Your task to perform on an android device: Add "energizer triple a" to the cart on newegg.com Image 0: 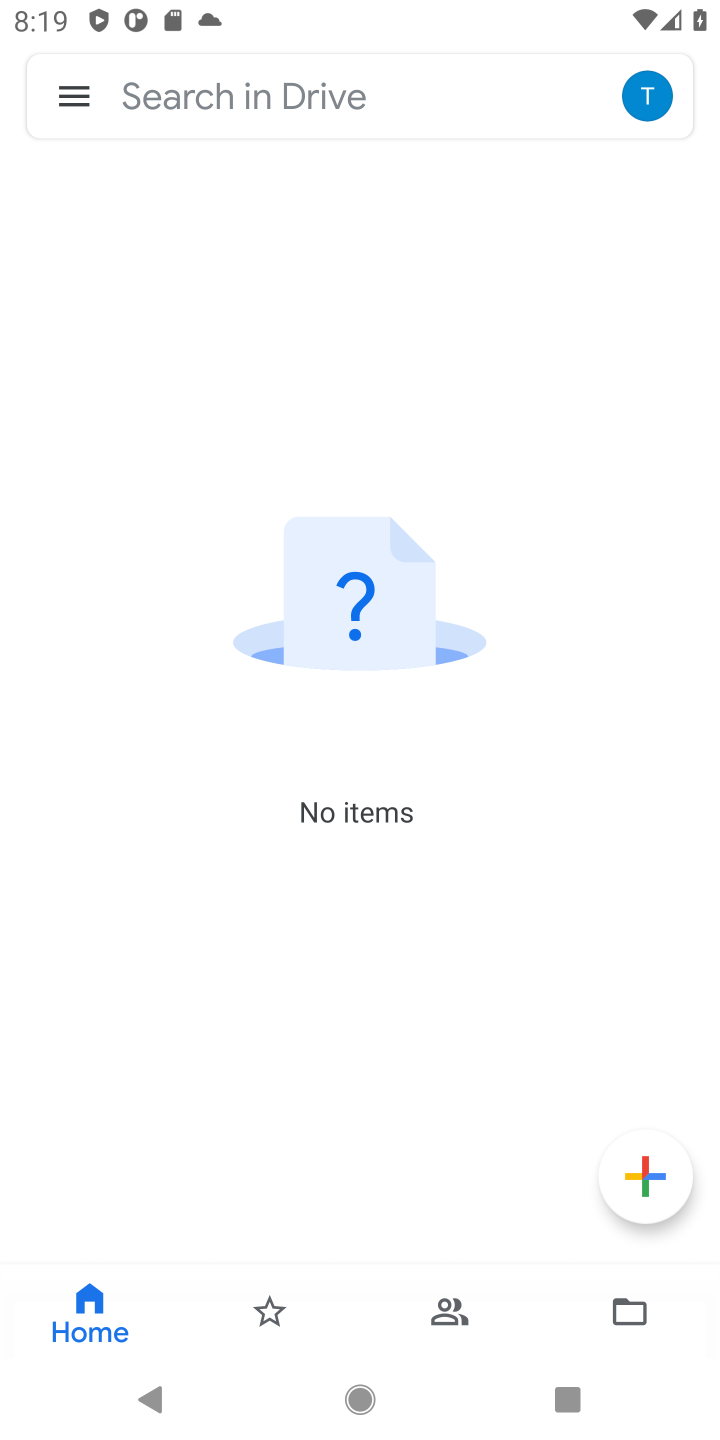
Step 0: press home button
Your task to perform on an android device: Add "energizer triple a" to the cart on newegg.com Image 1: 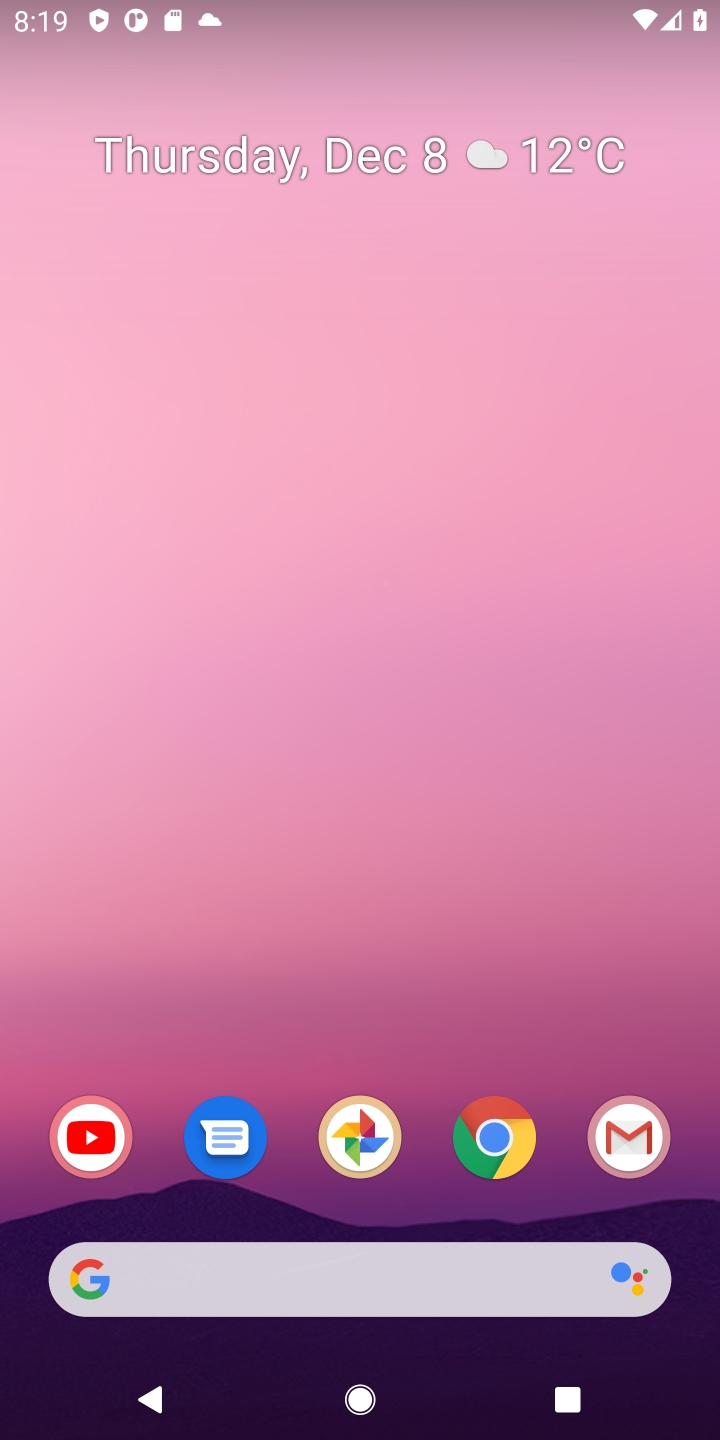
Step 1: click (488, 1134)
Your task to perform on an android device: Add "energizer triple a" to the cart on newegg.com Image 2: 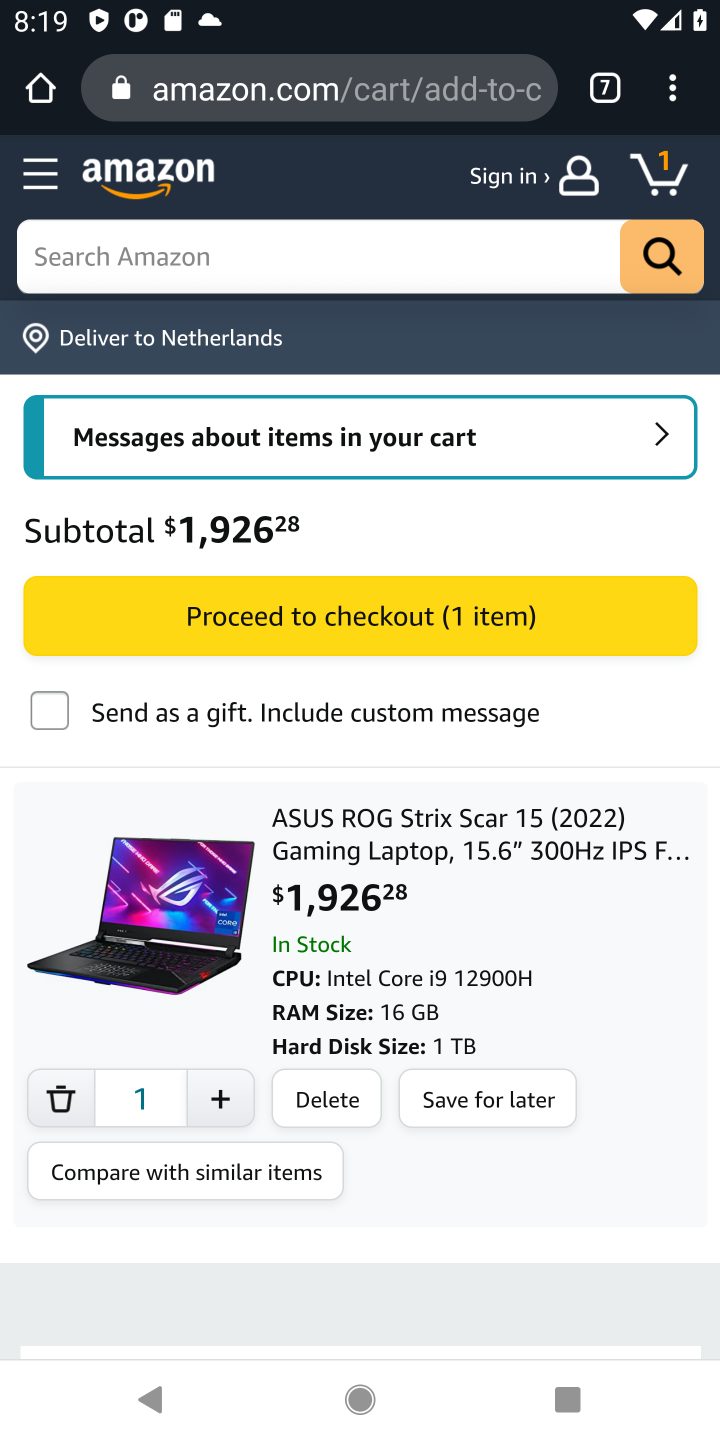
Step 2: click (608, 88)
Your task to perform on an android device: Add "energizer triple a" to the cart on newegg.com Image 3: 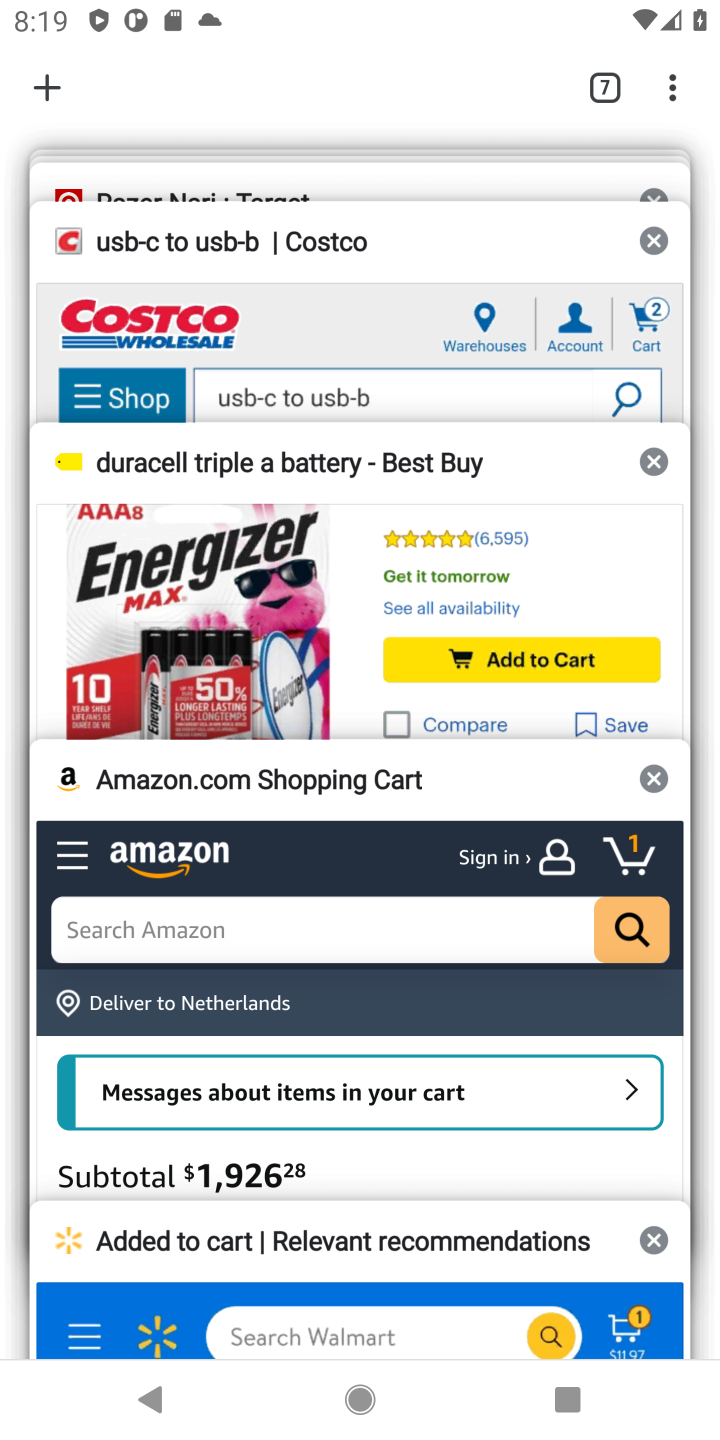
Step 3: drag from (405, 209) to (369, 473)
Your task to perform on an android device: Add "energizer triple a" to the cart on newegg.com Image 4: 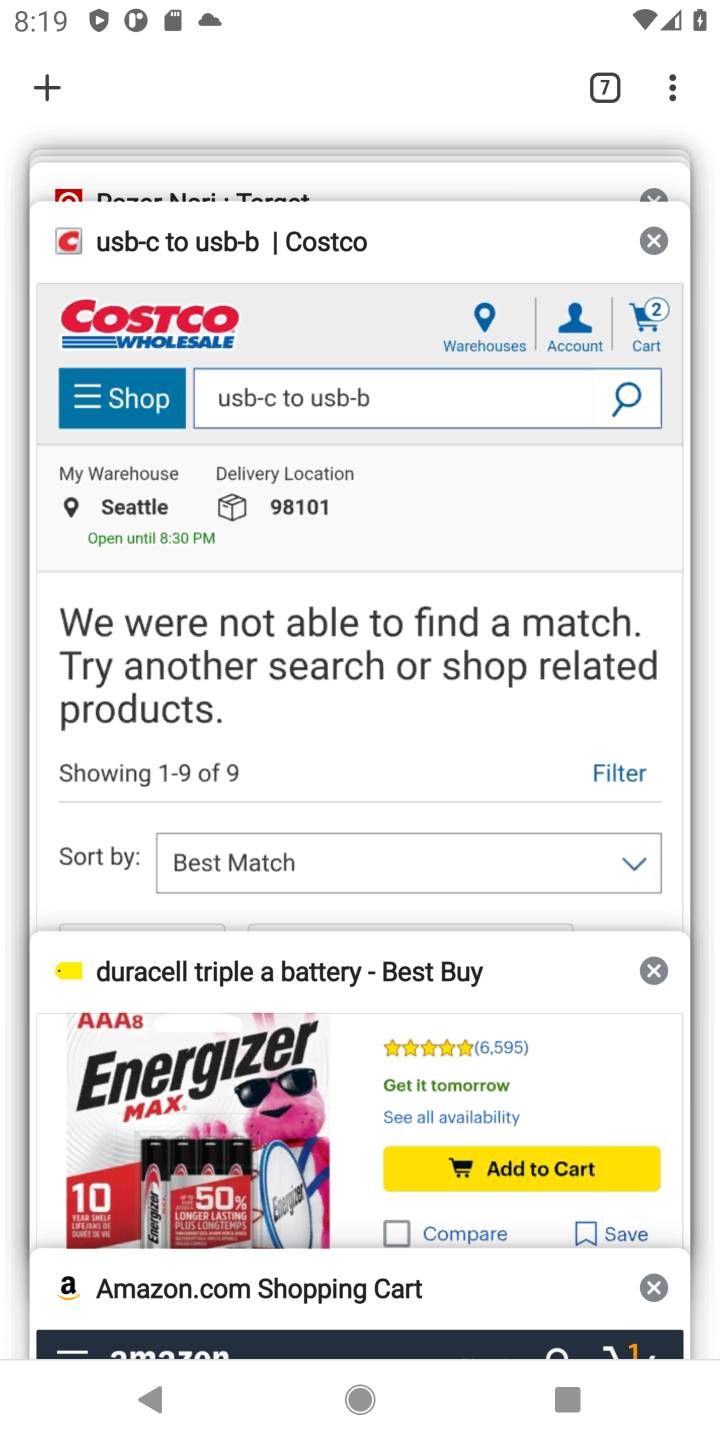
Step 4: drag from (480, 209) to (476, 449)
Your task to perform on an android device: Add "energizer triple a" to the cart on newegg.com Image 5: 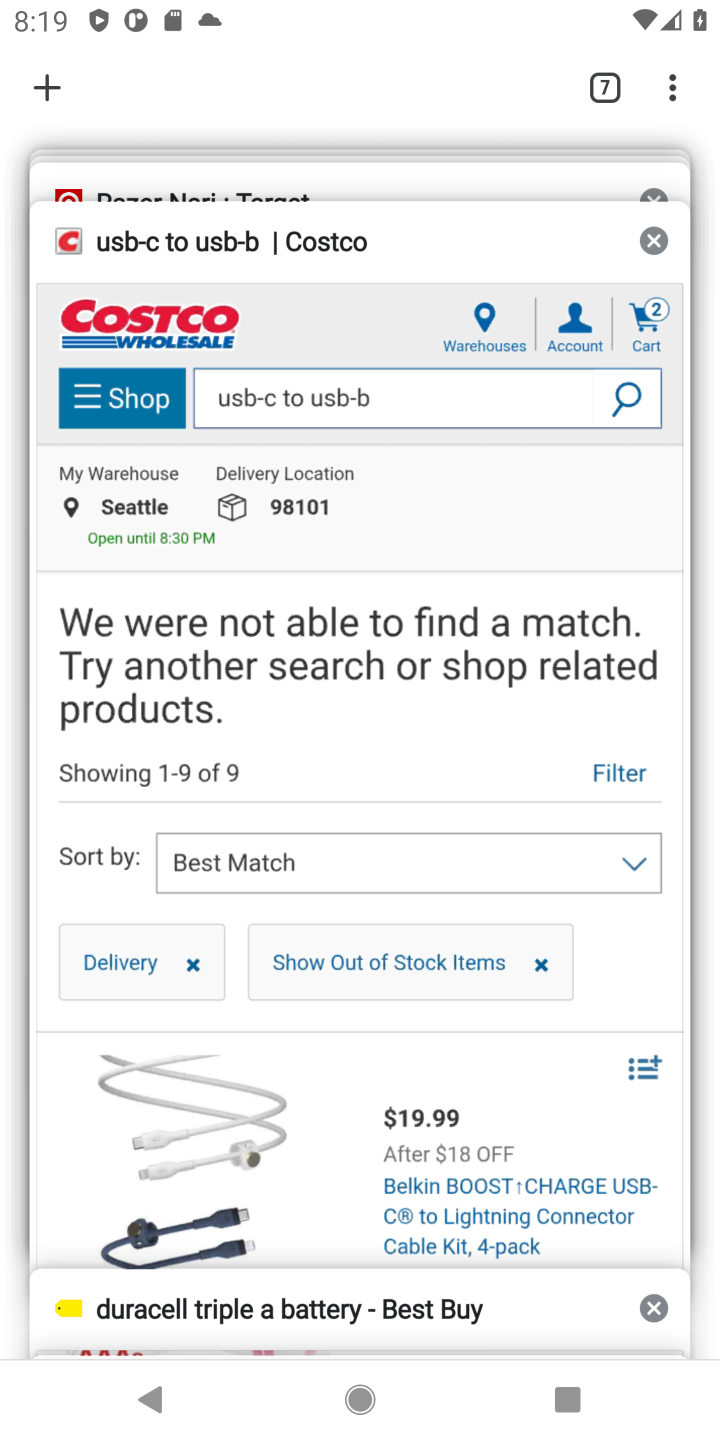
Step 5: drag from (513, 170) to (505, 263)
Your task to perform on an android device: Add "energizer triple a" to the cart on newegg.com Image 6: 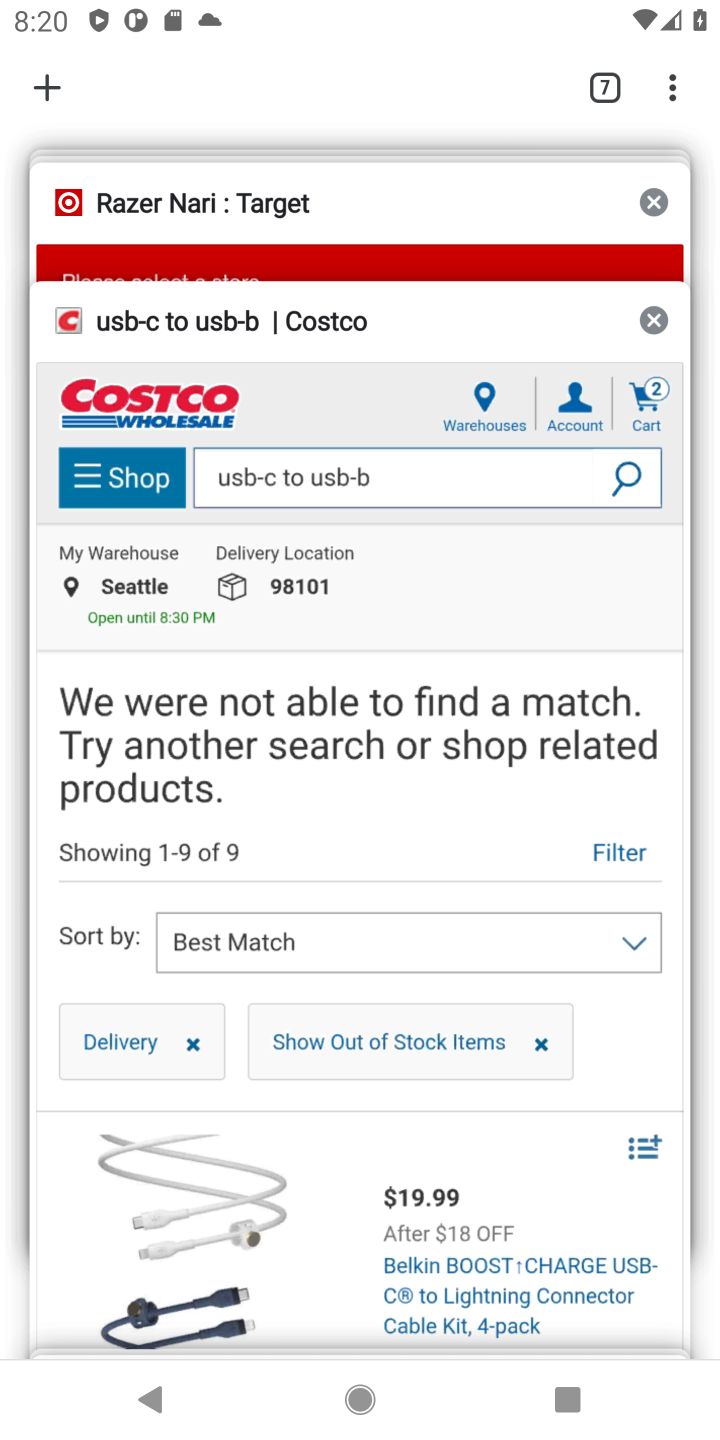
Step 6: drag from (497, 180) to (455, 553)
Your task to perform on an android device: Add "energizer triple a" to the cart on newegg.com Image 7: 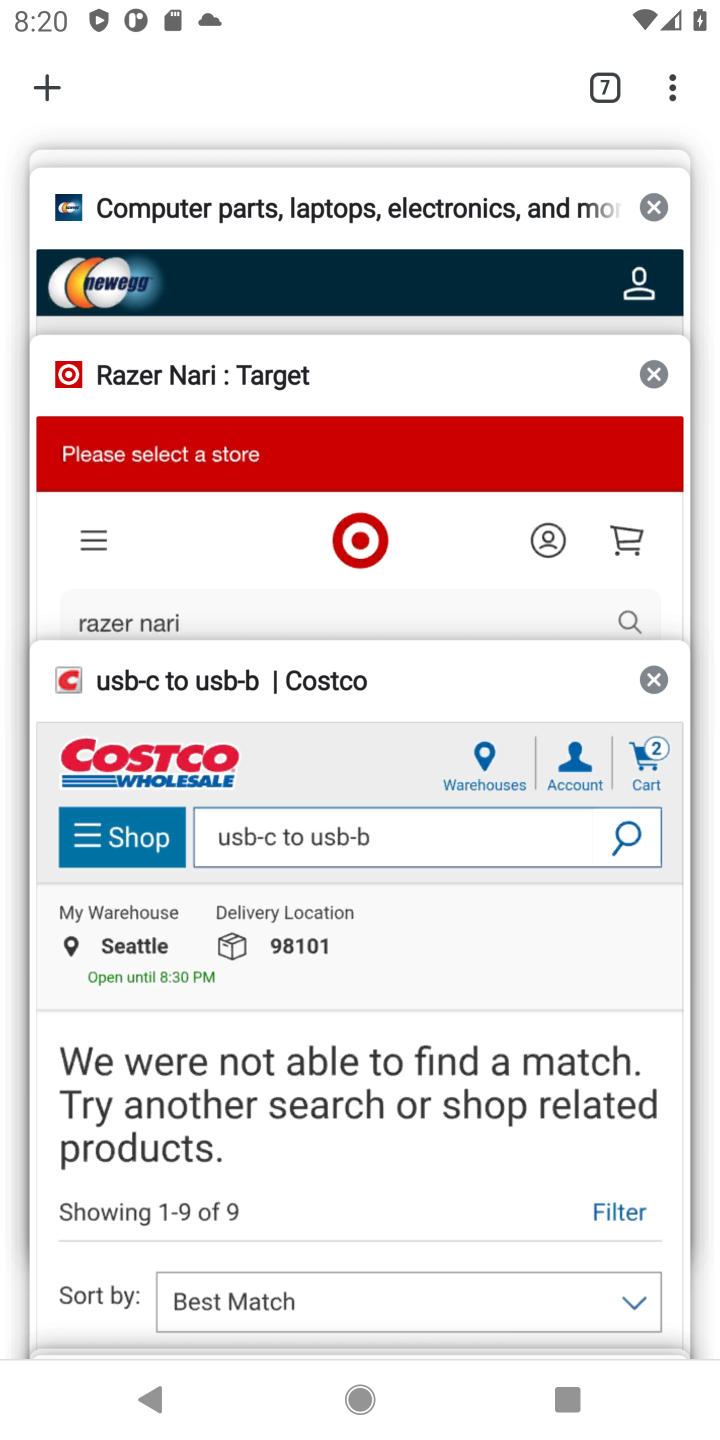
Step 7: click (446, 282)
Your task to perform on an android device: Add "energizer triple a" to the cart on newegg.com Image 8: 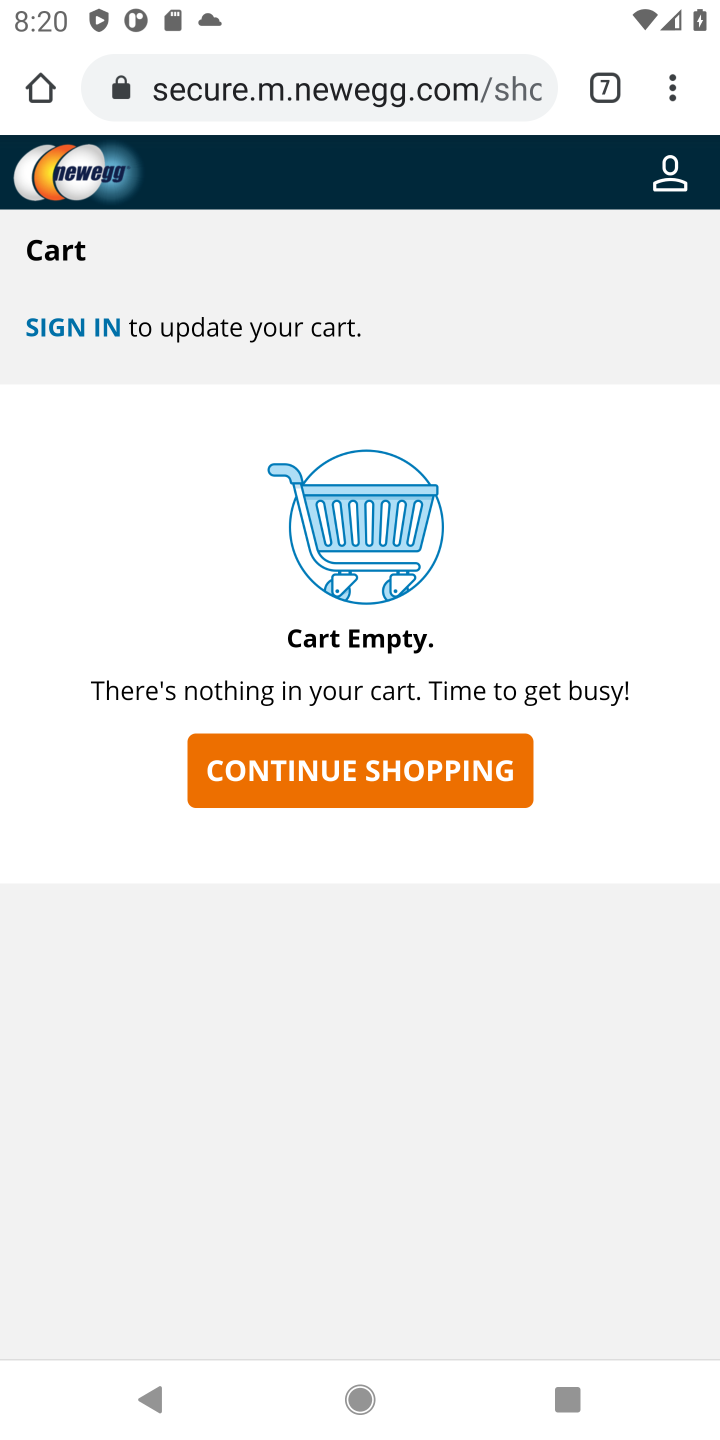
Step 8: click (434, 777)
Your task to perform on an android device: Add "energizer triple a" to the cart on newegg.com Image 9: 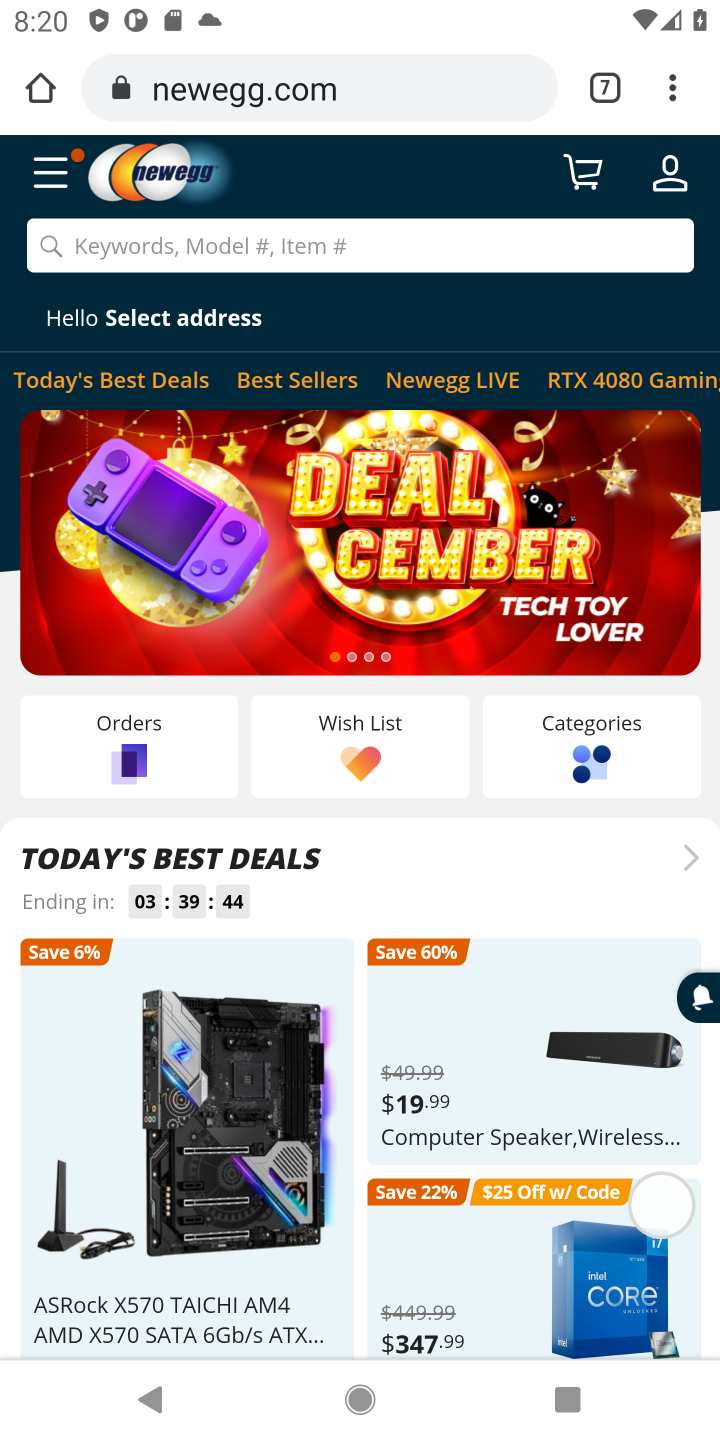
Step 9: click (181, 239)
Your task to perform on an android device: Add "energizer triple a" to the cart on newegg.com Image 10: 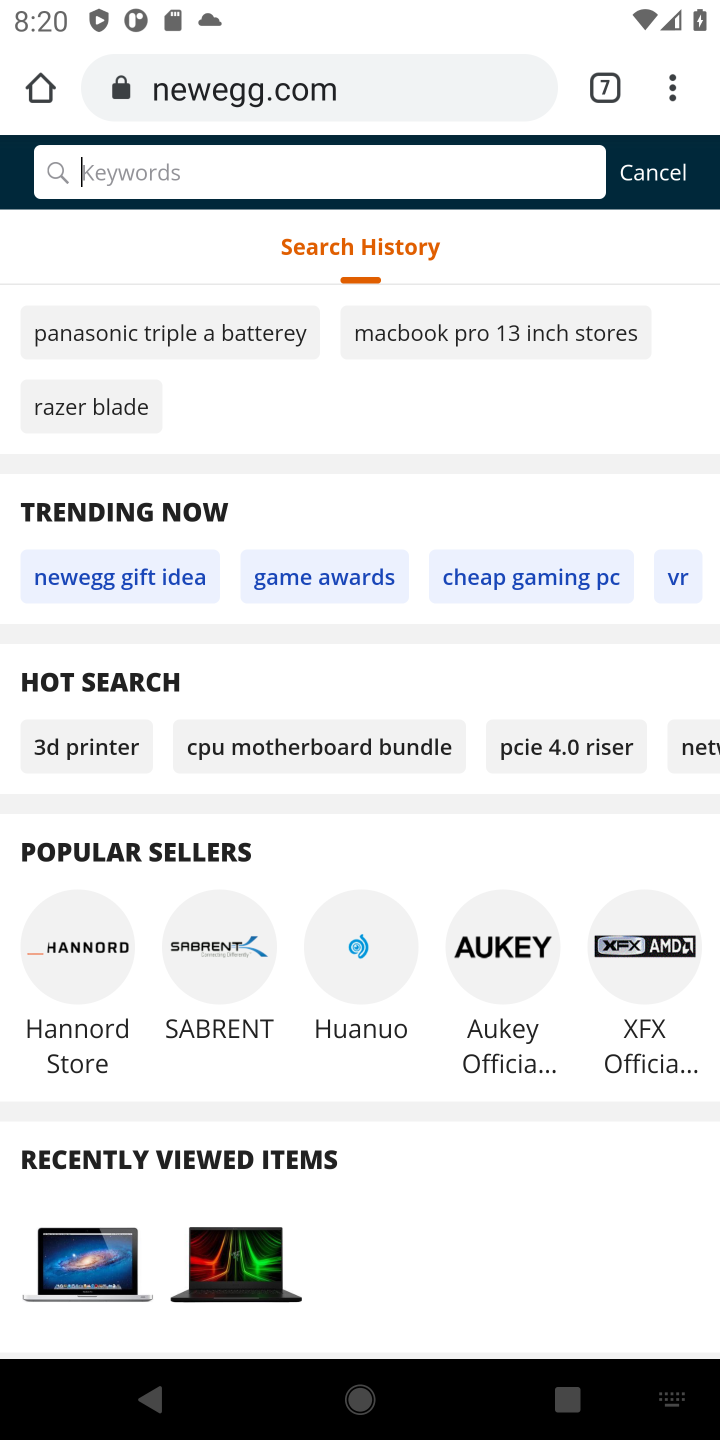
Step 10: type "energizer triple a battery"
Your task to perform on an android device: Add "energizer triple a" to the cart on newegg.com Image 11: 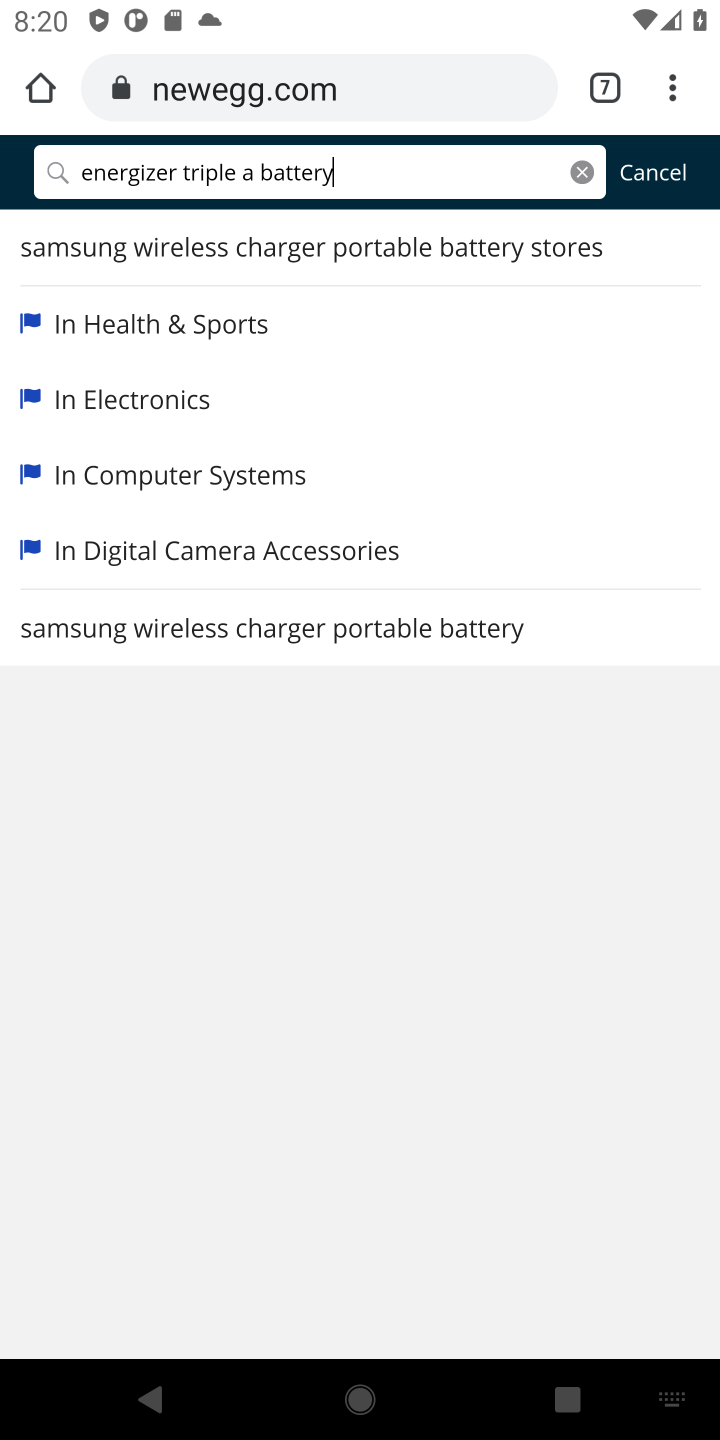
Step 11: press enter
Your task to perform on an android device: Add "energizer triple a" to the cart on newegg.com Image 12: 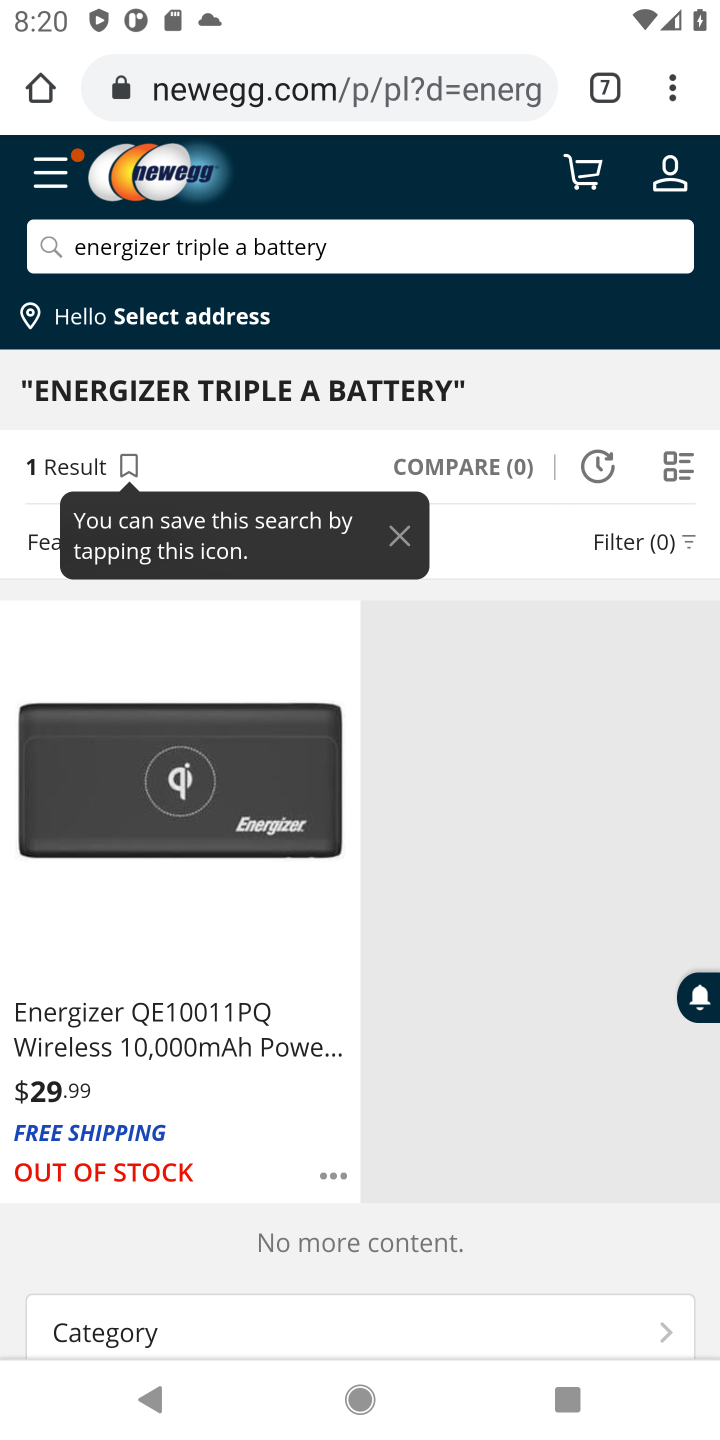
Step 12: click (194, 1037)
Your task to perform on an android device: Add "energizer triple a" to the cart on newegg.com Image 13: 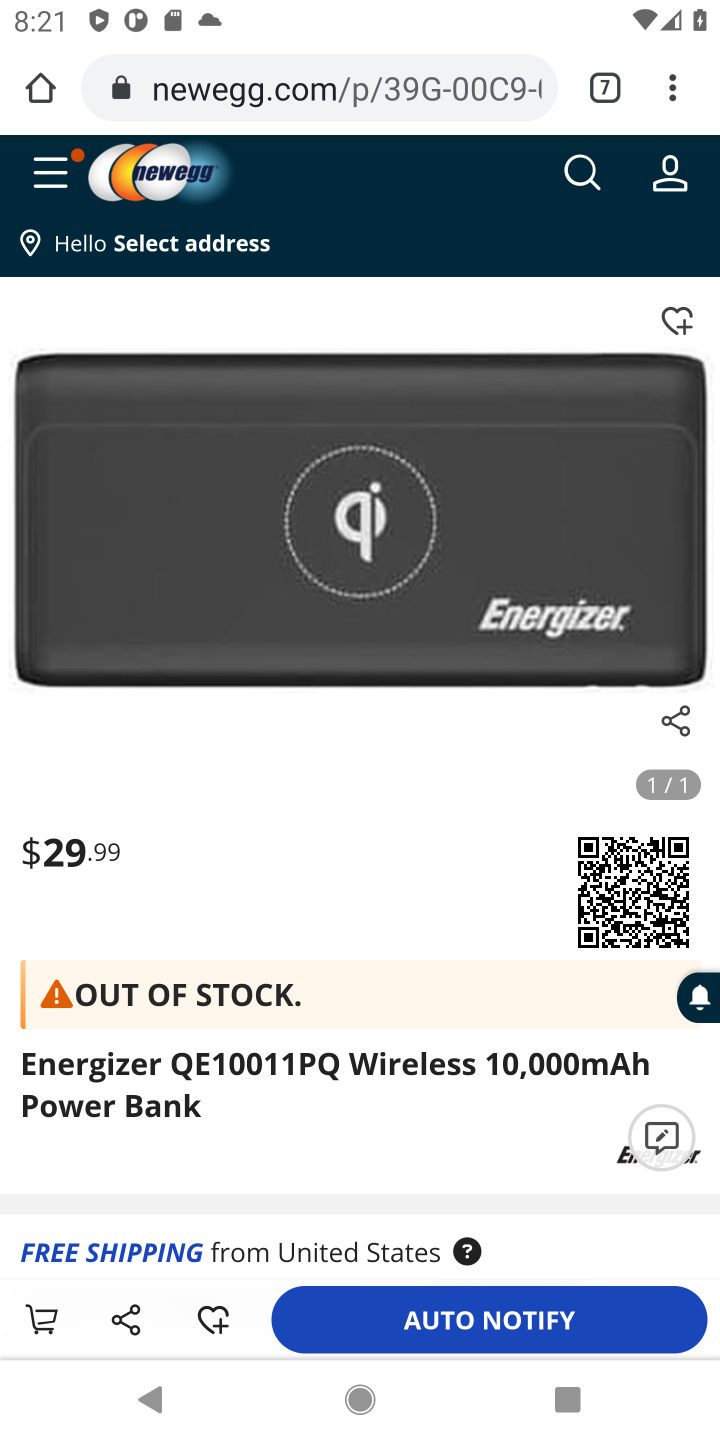
Step 13: task complete